Your task to perform on an android device: change the clock display to show seconds Image 0: 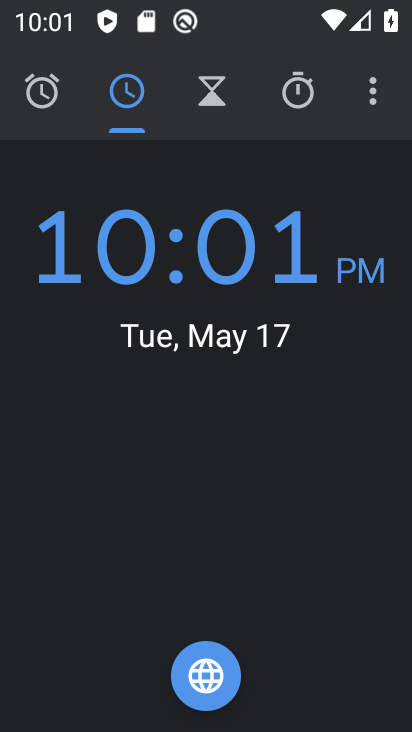
Step 0: click (366, 106)
Your task to perform on an android device: change the clock display to show seconds Image 1: 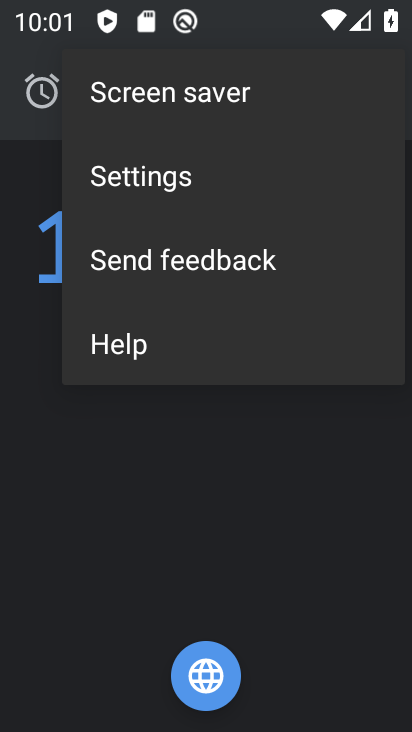
Step 1: click (269, 174)
Your task to perform on an android device: change the clock display to show seconds Image 2: 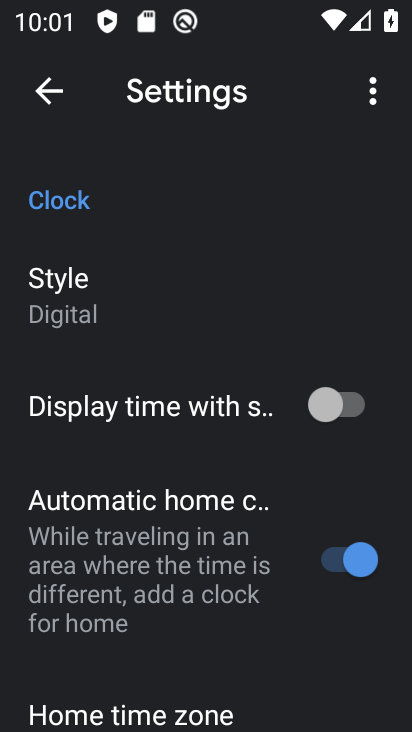
Step 2: click (366, 413)
Your task to perform on an android device: change the clock display to show seconds Image 3: 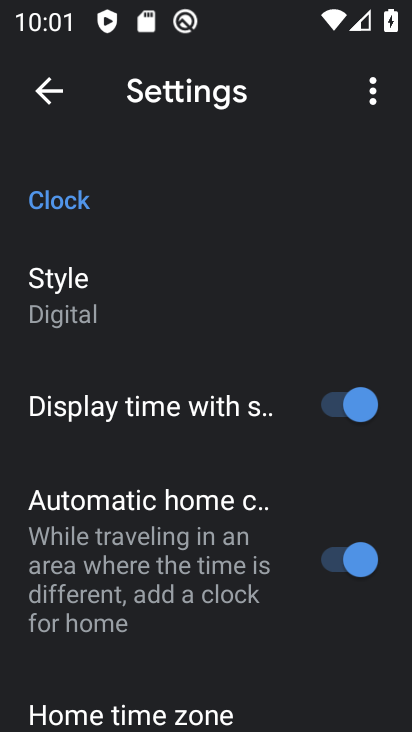
Step 3: task complete